Your task to perform on an android device: clear history in the chrome app Image 0: 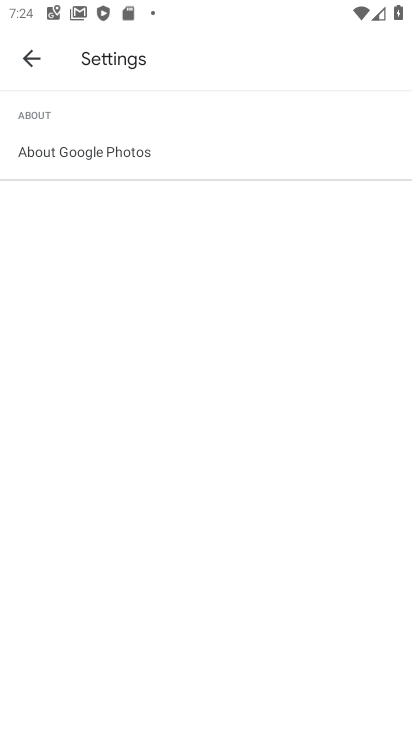
Step 0: press home button
Your task to perform on an android device: clear history in the chrome app Image 1: 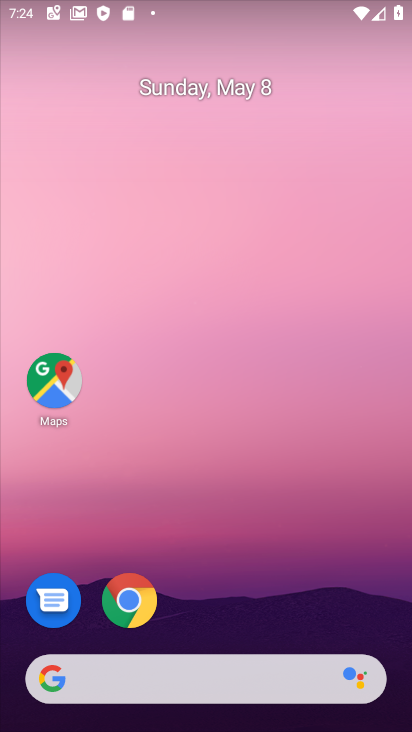
Step 1: drag from (216, 720) to (235, 449)
Your task to perform on an android device: clear history in the chrome app Image 2: 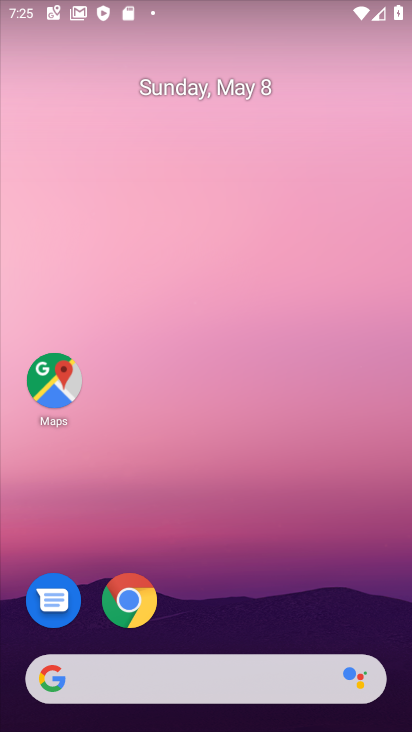
Step 2: drag from (248, 703) to (314, 308)
Your task to perform on an android device: clear history in the chrome app Image 3: 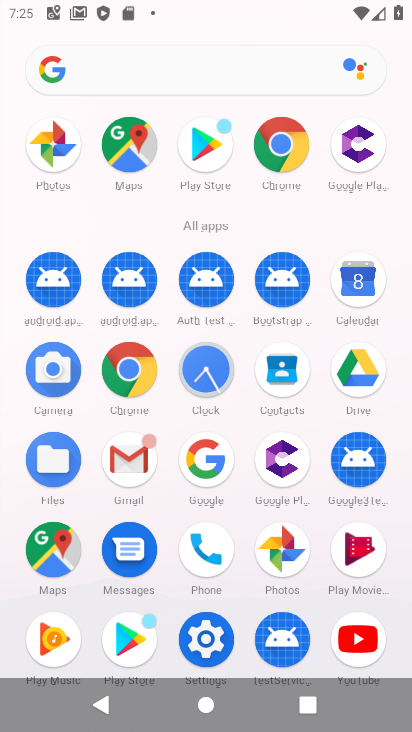
Step 3: click (131, 361)
Your task to perform on an android device: clear history in the chrome app Image 4: 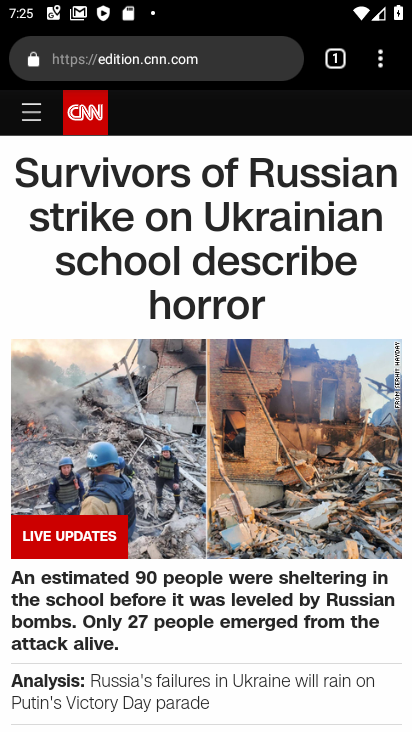
Step 4: click (379, 84)
Your task to perform on an android device: clear history in the chrome app Image 5: 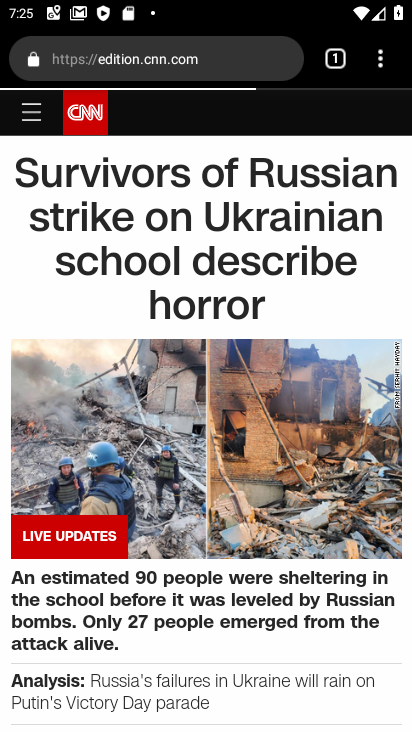
Step 5: click (375, 79)
Your task to perform on an android device: clear history in the chrome app Image 6: 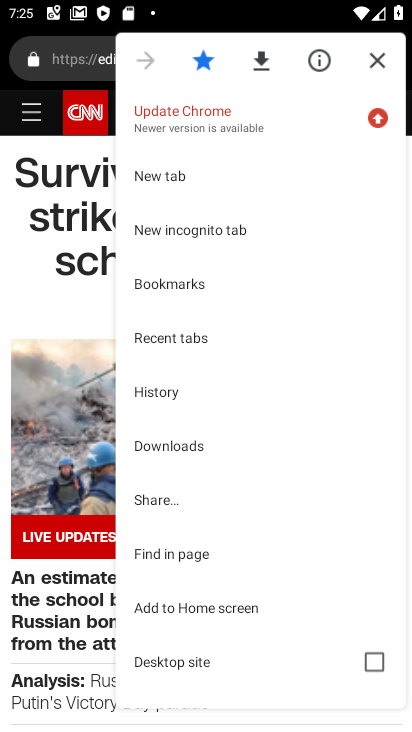
Step 6: drag from (237, 582) to (244, 298)
Your task to perform on an android device: clear history in the chrome app Image 7: 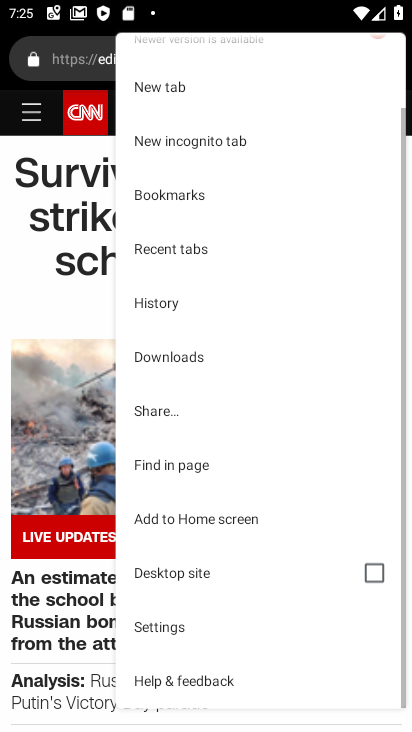
Step 7: click (190, 622)
Your task to perform on an android device: clear history in the chrome app Image 8: 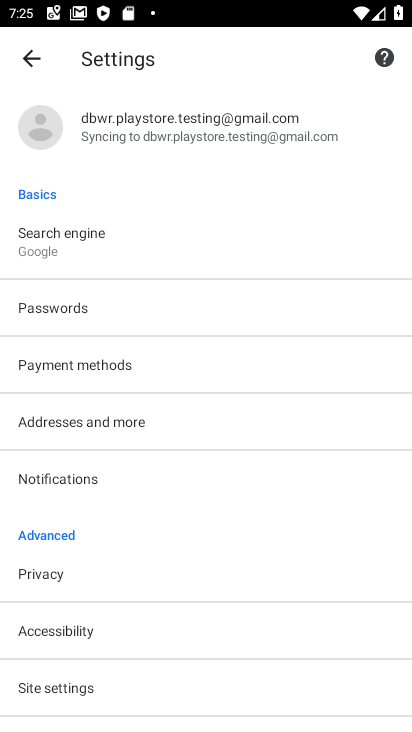
Step 8: click (57, 574)
Your task to perform on an android device: clear history in the chrome app Image 9: 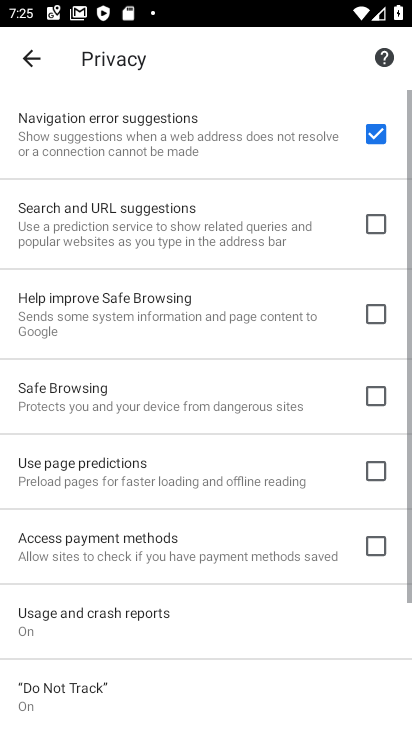
Step 9: drag from (171, 659) to (193, 350)
Your task to perform on an android device: clear history in the chrome app Image 10: 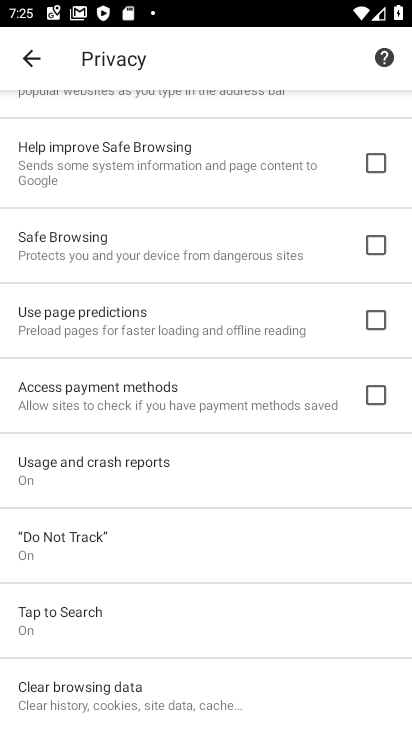
Step 10: click (157, 719)
Your task to perform on an android device: clear history in the chrome app Image 11: 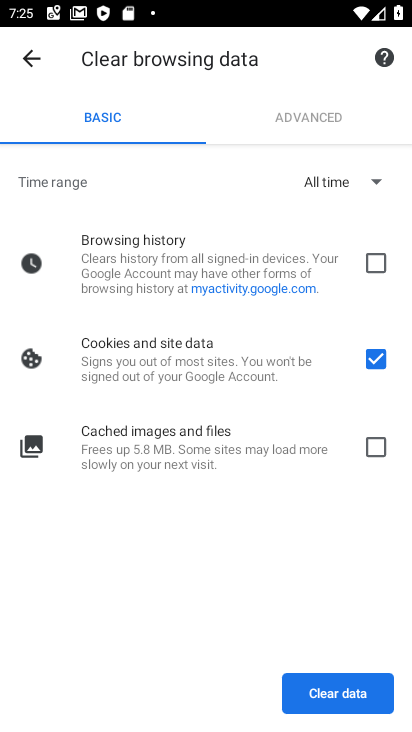
Step 11: click (382, 361)
Your task to perform on an android device: clear history in the chrome app Image 12: 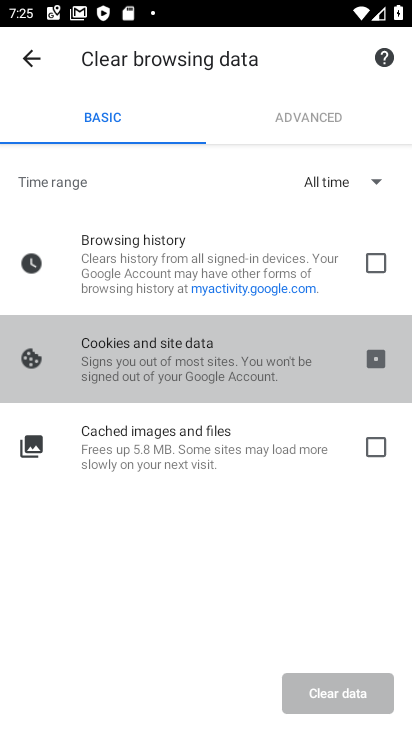
Step 12: click (360, 268)
Your task to perform on an android device: clear history in the chrome app Image 13: 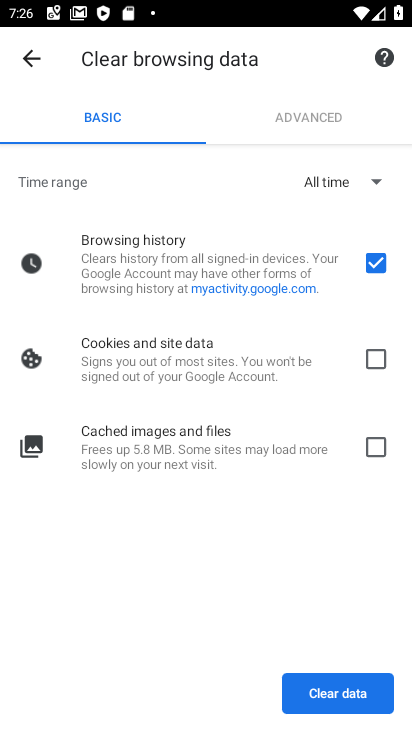
Step 13: click (366, 706)
Your task to perform on an android device: clear history in the chrome app Image 14: 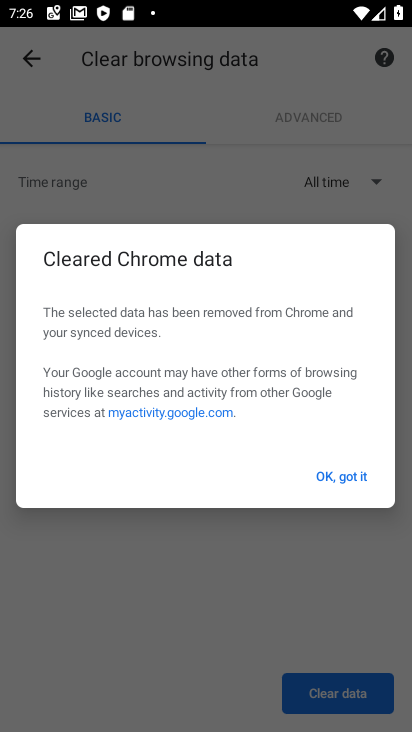
Step 14: task complete